Your task to perform on an android device: check the backup settings in the google photos Image 0: 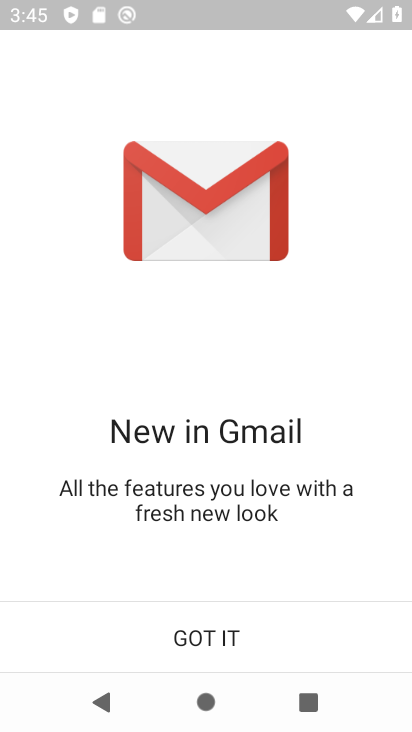
Step 0: press home button
Your task to perform on an android device: check the backup settings in the google photos Image 1: 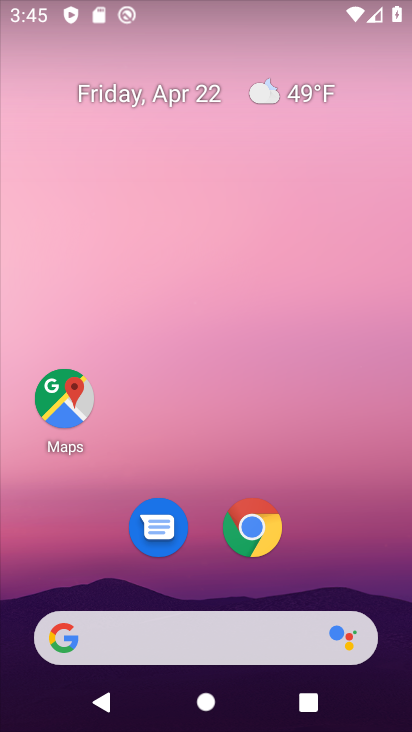
Step 1: drag from (348, 524) to (294, 128)
Your task to perform on an android device: check the backup settings in the google photos Image 2: 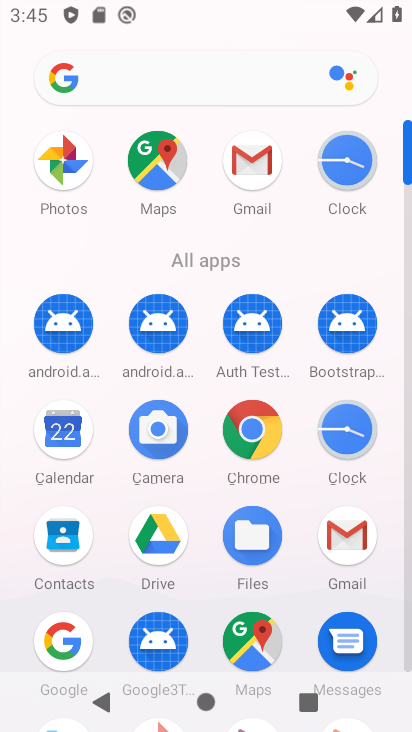
Step 2: click (62, 163)
Your task to perform on an android device: check the backup settings in the google photos Image 3: 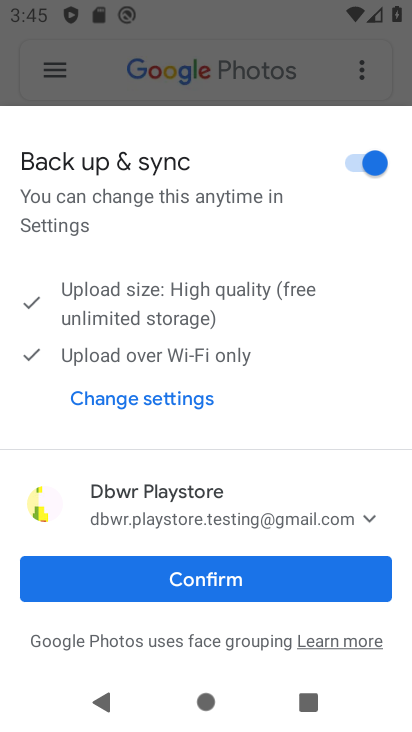
Step 3: click (251, 587)
Your task to perform on an android device: check the backup settings in the google photos Image 4: 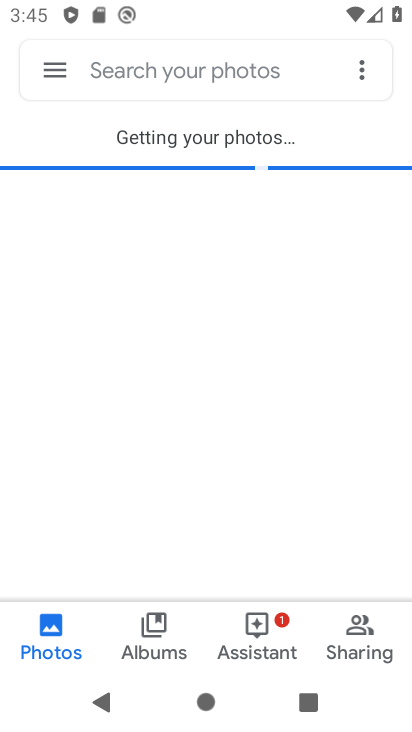
Step 4: click (47, 79)
Your task to perform on an android device: check the backup settings in the google photos Image 5: 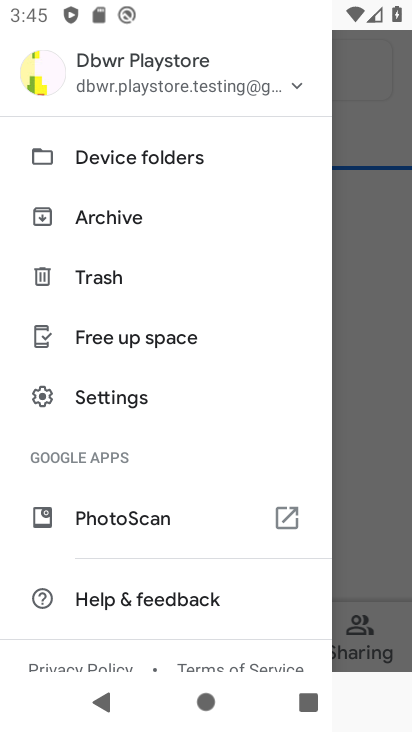
Step 5: click (102, 414)
Your task to perform on an android device: check the backup settings in the google photos Image 6: 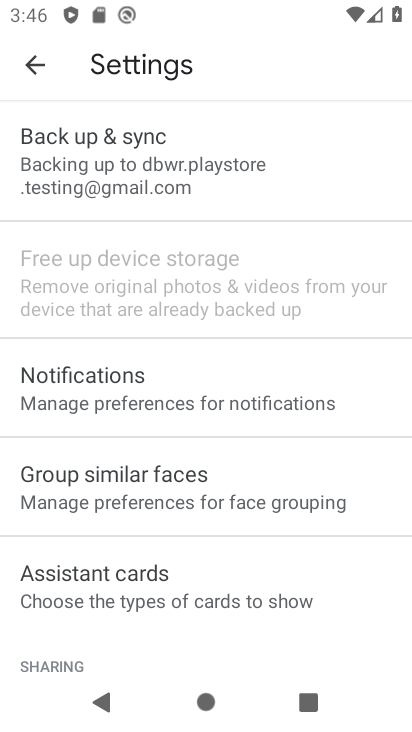
Step 6: click (108, 174)
Your task to perform on an android device: check the backup settings in the google photos Image 7: 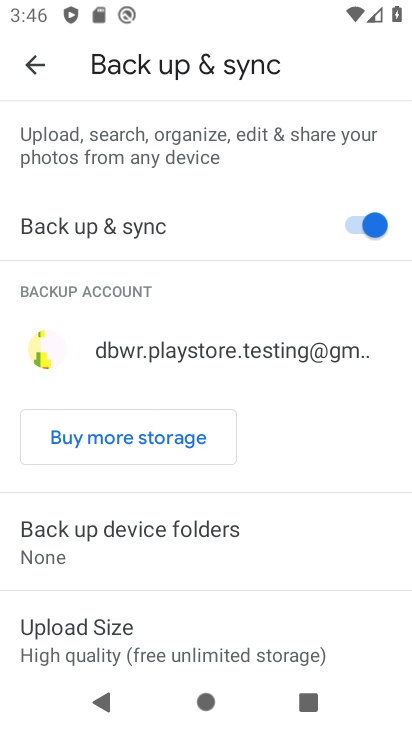
Step 7: click (117, 632)
Your task to perform on an android device: check the backup settings in the google photos Image 8: 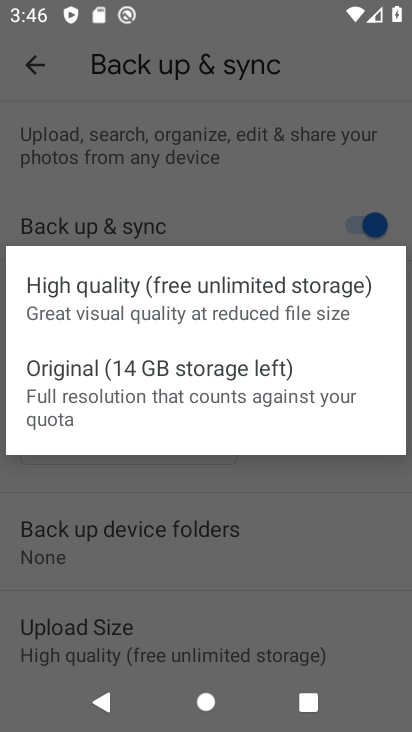
Step 8: click (115, 194)
Your task to perform on an android device: check the backup settings in the google photos Image 9: 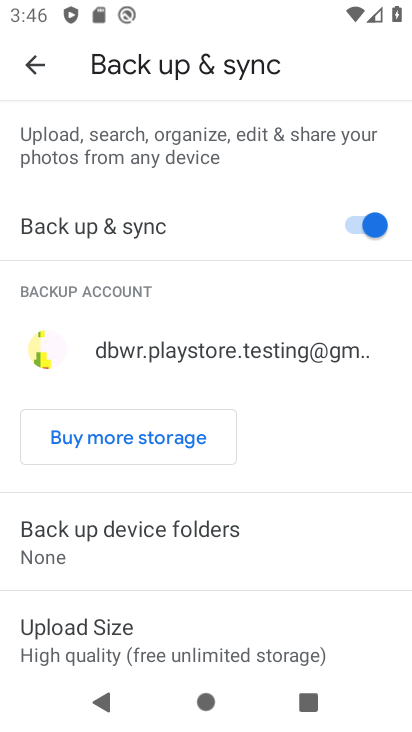
Step 9: task complete